Your task to perform on an android device: change the clock display to show seconds Image 0: 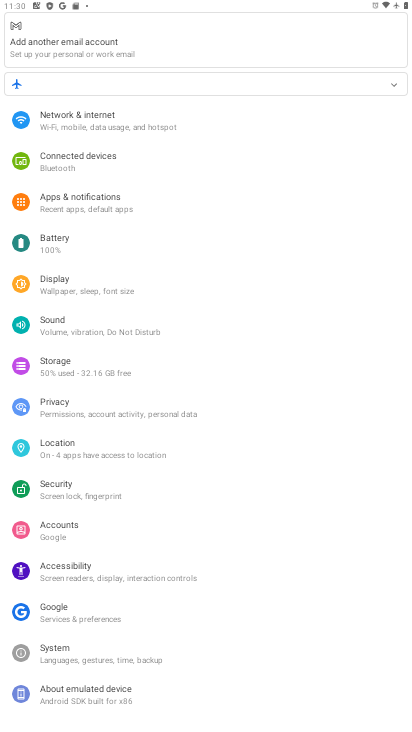
Step 0: press home button
Your task to perform on an android device: change the clock display to show seconds Image 1: 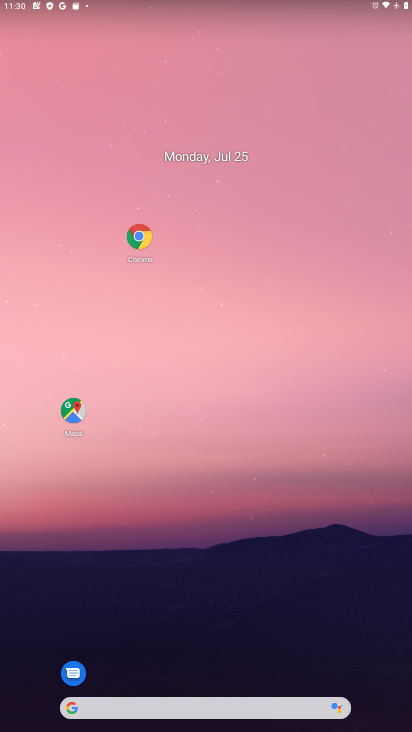
Step 1: drag from (271, 649) to (301, 190)
Your task to perform on an android device: change the clock display to show seconds Image 2: 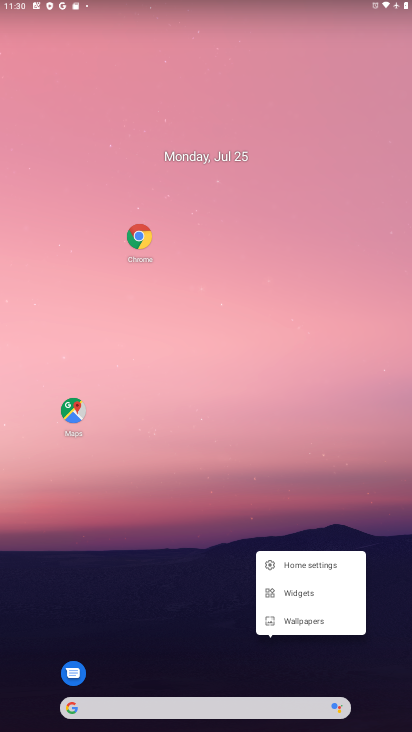
Step 2: click (270, 343)
Your task to perform on an android device: change the clock display to show seconds Image 3: 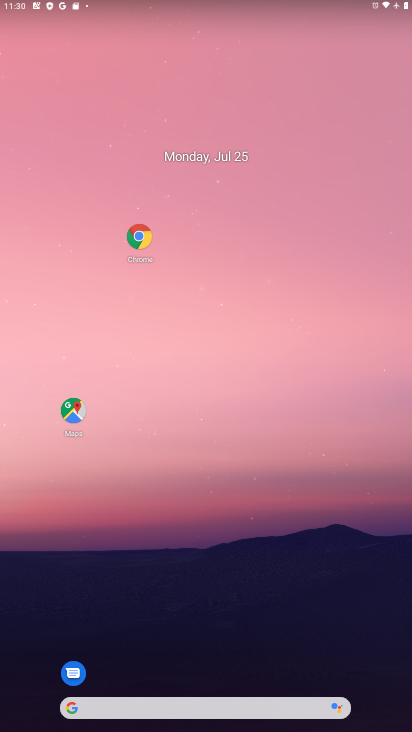
Step 3: drag from (196, 664) to (178, 192)
Your task to perform on an android device: change the clock display to show seconds Image 4: 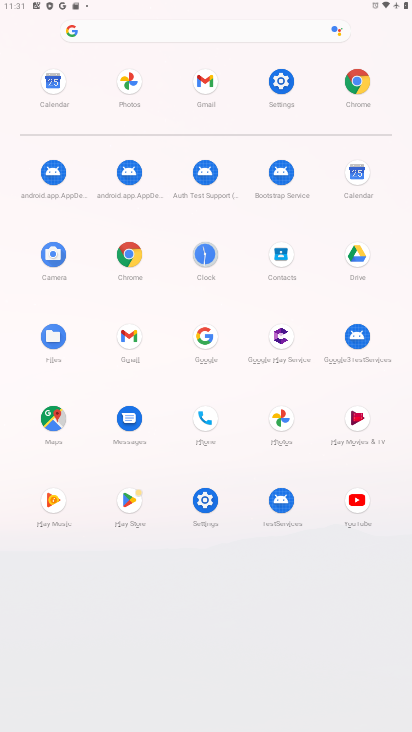
Step 4: click (202, 254)
Your task to perform on an android device: change the clock display to show seconds Image 5: 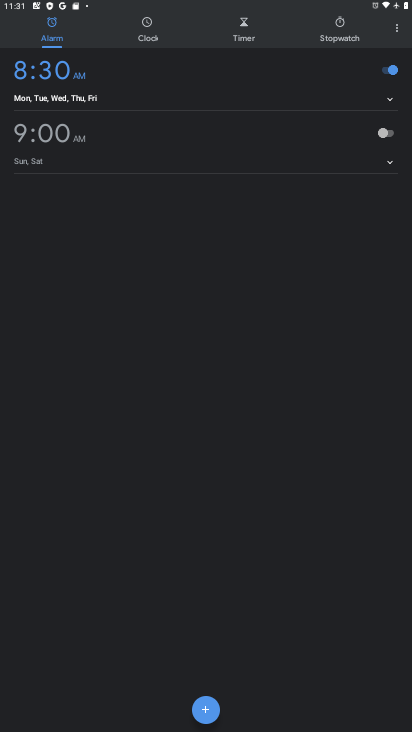
Step 5: click (397, 51)
Your task to perform on an android device: change the clock display to show seconds Image 6: 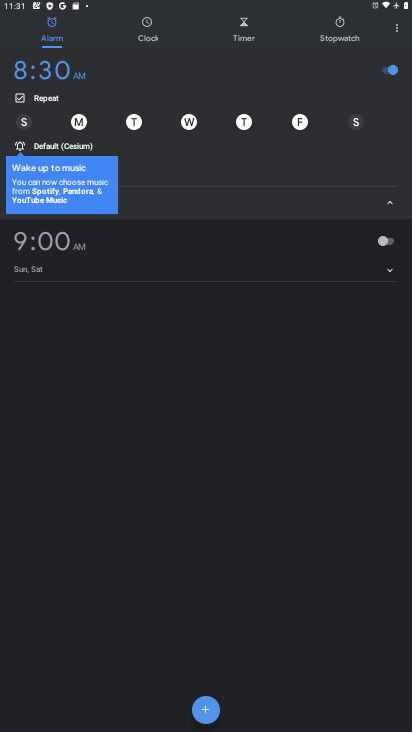
Step 6: click (397, 35)
Your task to perform on an android device: change the clock display to show seconds Image 7: 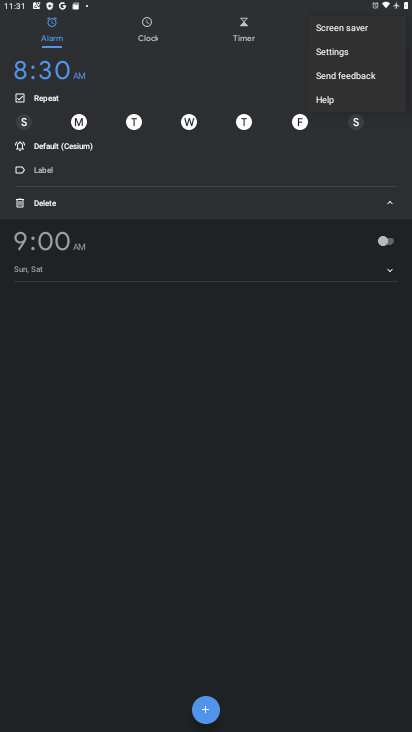
Step 7: click (390, 34)
Your task to perform on an android device: change the clock display to show seconds Image 8: 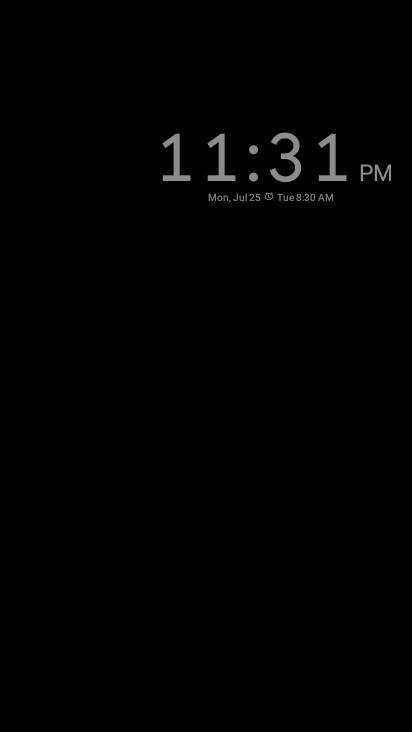
Step 8: task complete